Your task to perform on an android device: Show me the alarms in the clock app Image 0: 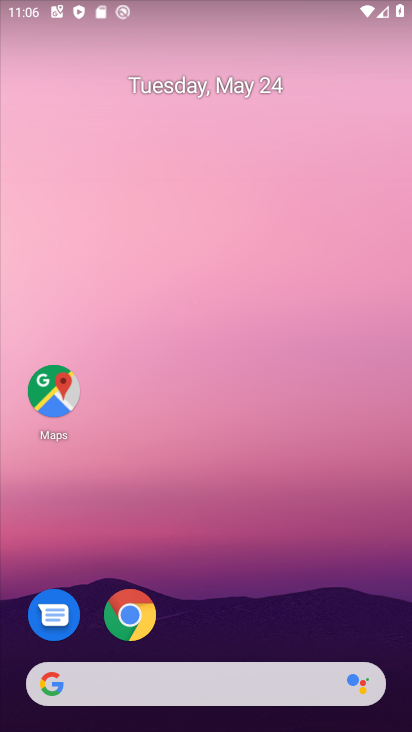
Step 0: drag from (237, 513) to (323, 23)
Your task to perform on an android device: Show me the alarms in the clock app Image 1: 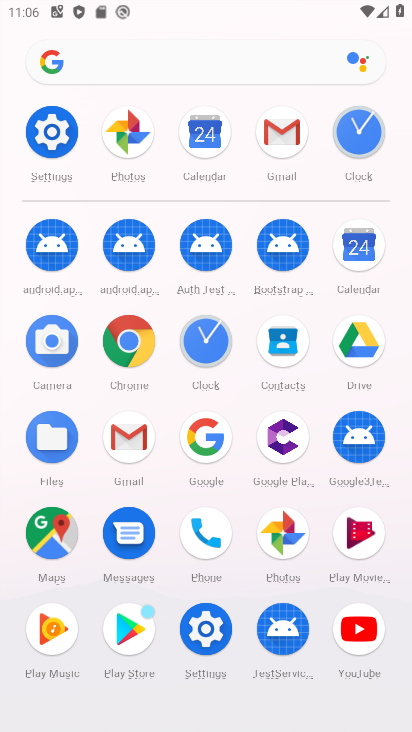
Step 1: click (362, 147)
Your task to perform on an android device: Show me the alarms in the clock app Image 2: 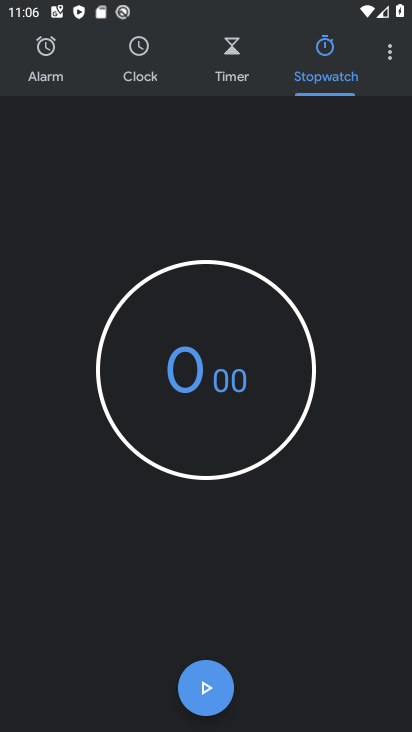
Step 2: click (59, 74)
Your task to perform on an android device: Show me the alarms in the clock app Image 3: 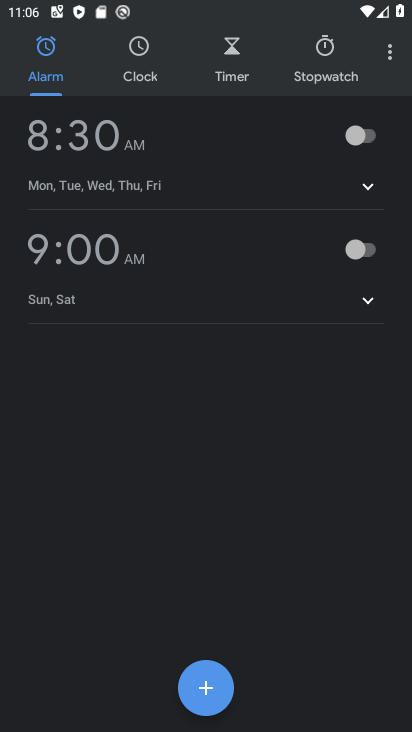
Step 3: task complete